Your task to perform on an android device: Open the calendar app, open the side menu, and click the "Day" option Image 0: 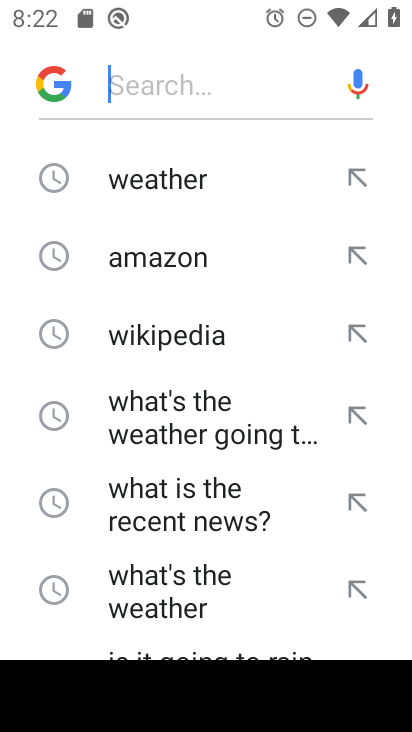
Step 0: press home button
Your task to perform on an android device: Open the calendar app, open the side menu, and click the "Day" option Image 1: 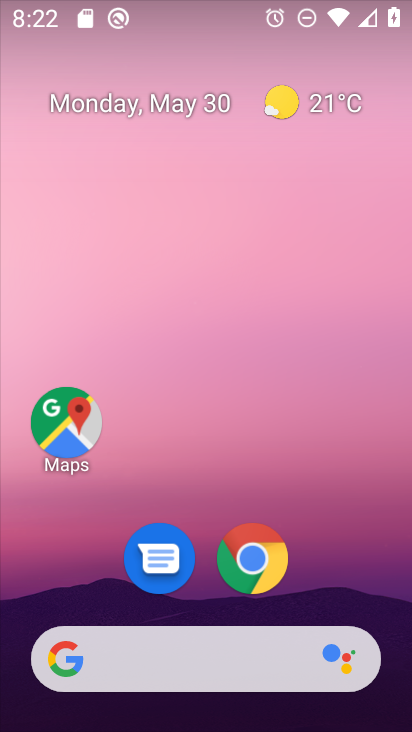
Step 1: drag from (229, 485) to (106, 32)
Your task to perform on an android device: Open the calendar app, open the side menu, and click the "Day" option Image 2: 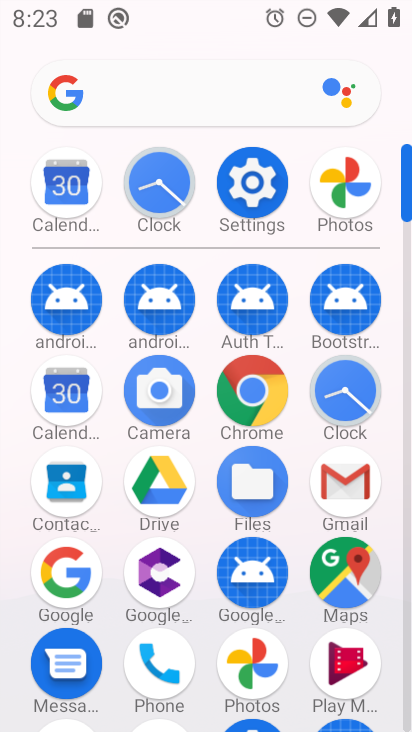
Step 2: click (65, 410)
Your task to perform on an android device: Open the calendar app, open the side menu, and click the "Day" option Image 3: 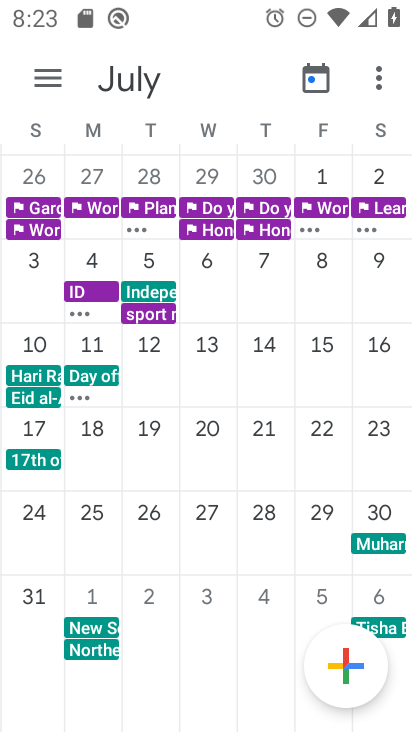
Step 3: click (44, 69)
Your task to perform on an android device: Open the calendar app, open the side menu, and click the "Day" option Image 4: 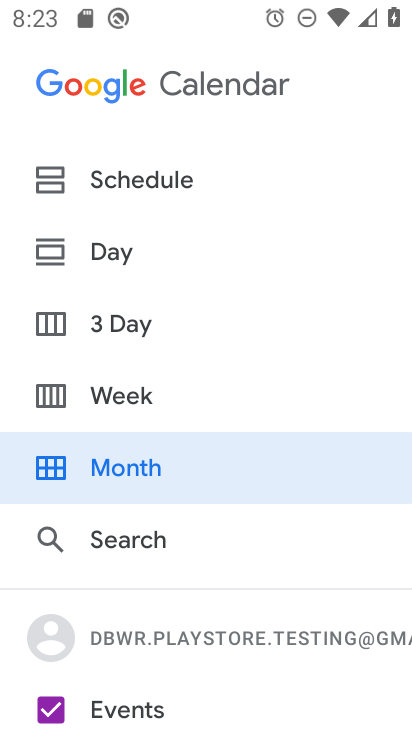
Step 4: click (95, 243)
Your task to perform on an android device: Open the calendar app, open the side menu, and click the "Day" option Image 5: 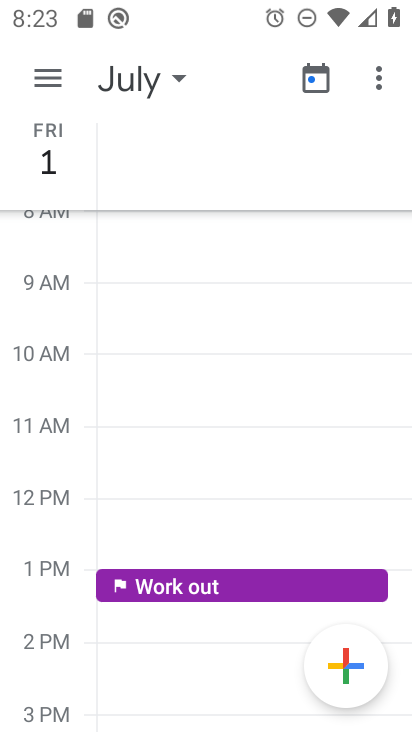
Step 5: task complete